Your task to perform on an android device: Go to Google maps Image 0: 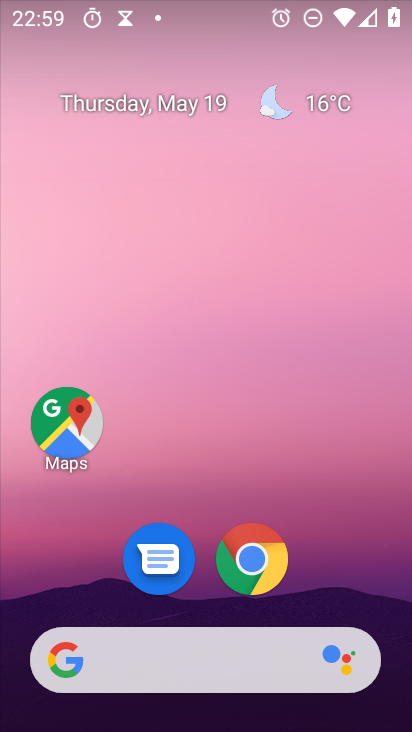
Step 0: drag from (209, 725) to (186, 146)
Your task to perform on an android device: Go to Google maps Image 1: 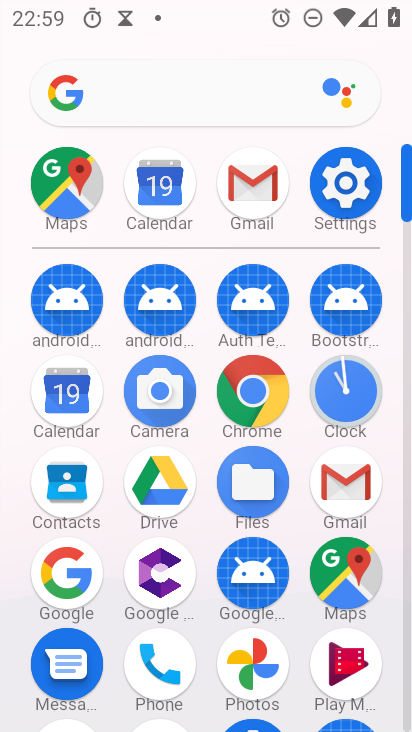
Step 1: click (341, 576)
Your task to perform on an android device: Go to Google maps Image 2: 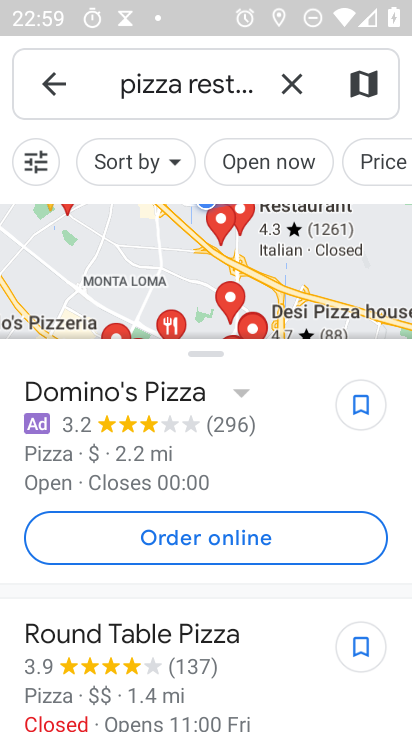
Step 2: task complete